Your task to perform on an android device: change timer sound Image 0: 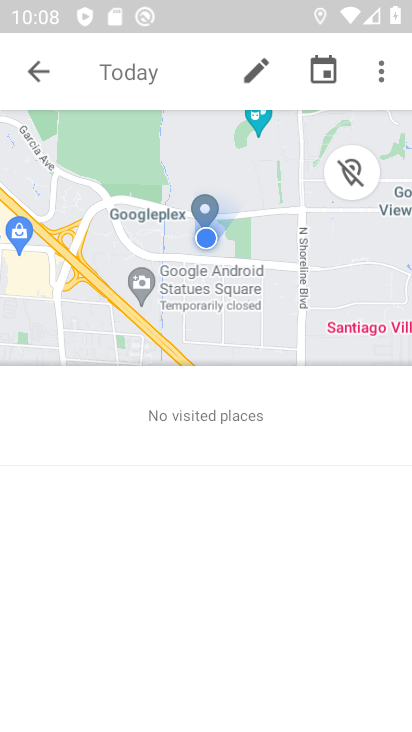
Step 0: drag from (307, 451) to (259, 20)
Your task to perform on an android device: change timer sound Image 1: 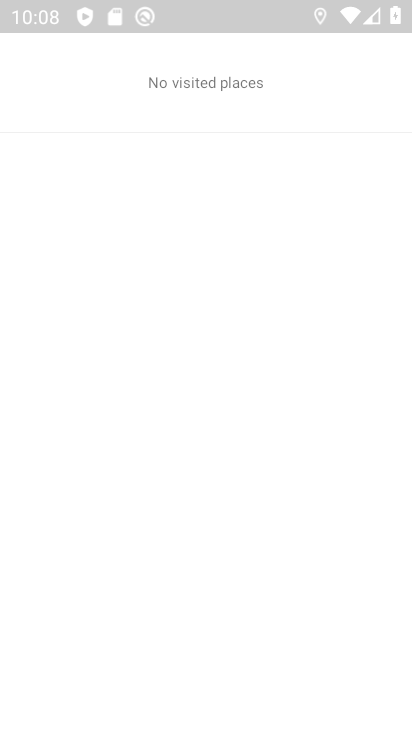
Step 1: press home button
Your task to perform on an android device: change timer sound Image 2: 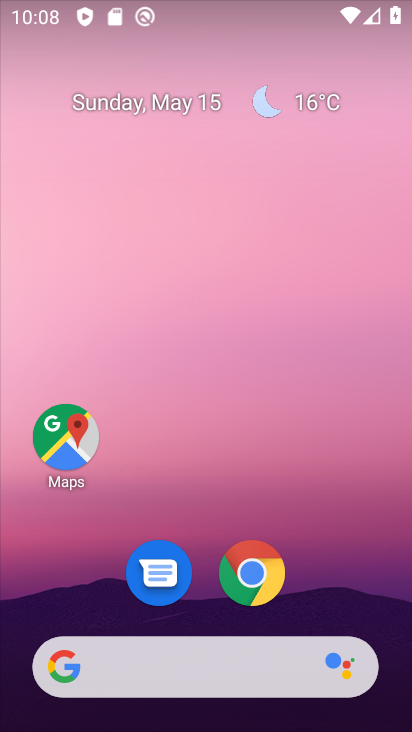
Step 2: drag from (326, 605) to (258, 107)
Your task to perform on an android device: change timer sound Image 3: 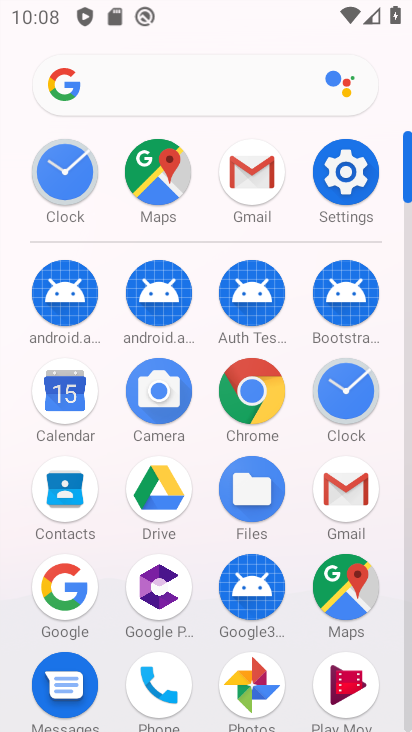
Step 3: click (349, 399)
Your task to perform on an android device: change timer sound Image 4: 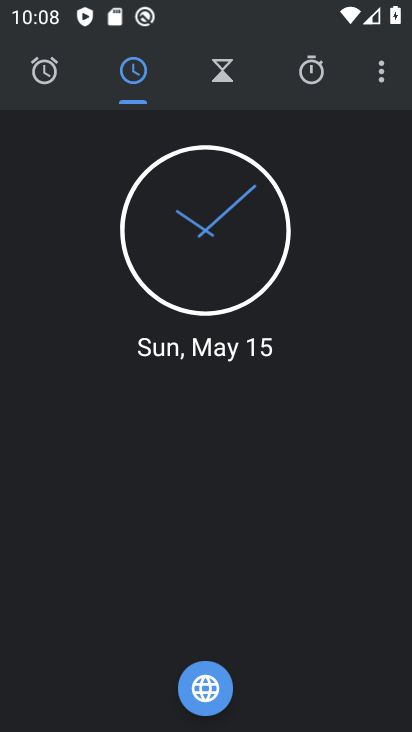
Step 4: click (384, 83)
Your task to perform on an android device: change timer sound Image 5: 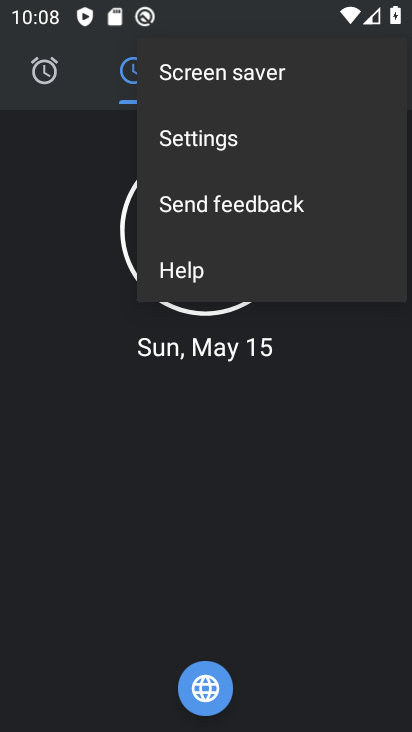
Step 5: click (222, 148)
Your task to perform on an android device: change timer sound Image 6: 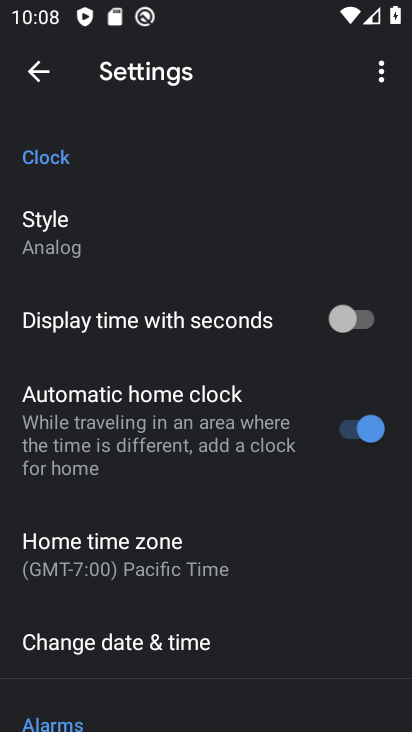
Step 6: drag from (198, 540) to (184, 191)
Your task to perform on an android device: change timer sound Image 7: 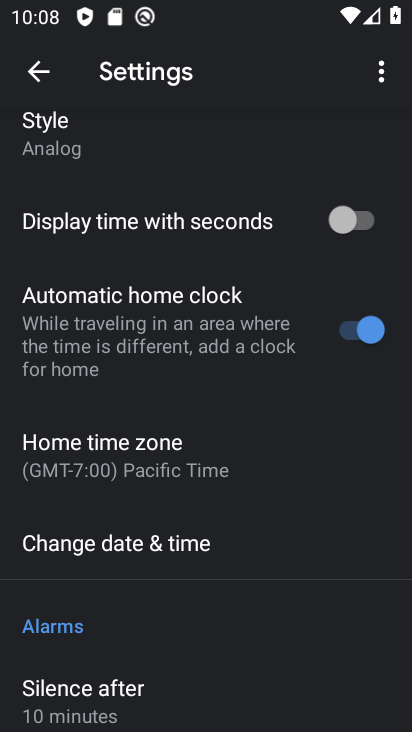
Step 7: drag from (134, 590) to (107, 249)
Your task to perform on an android device: change timer sound Image 8: 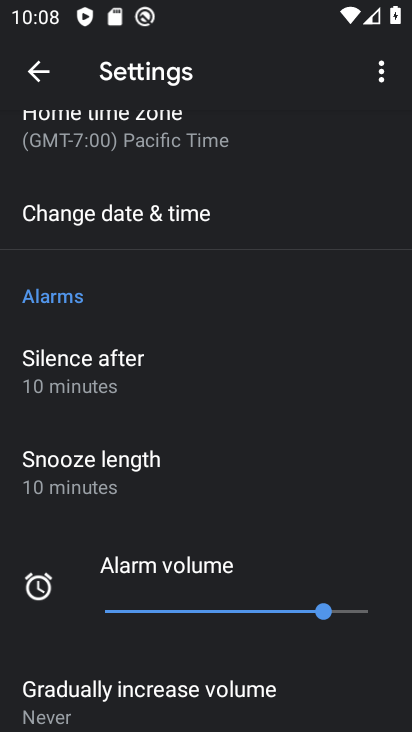
Step 8: drag from (116, 344) to (156, 140)
Your task to perform on an android device: change timer sound Image 9: 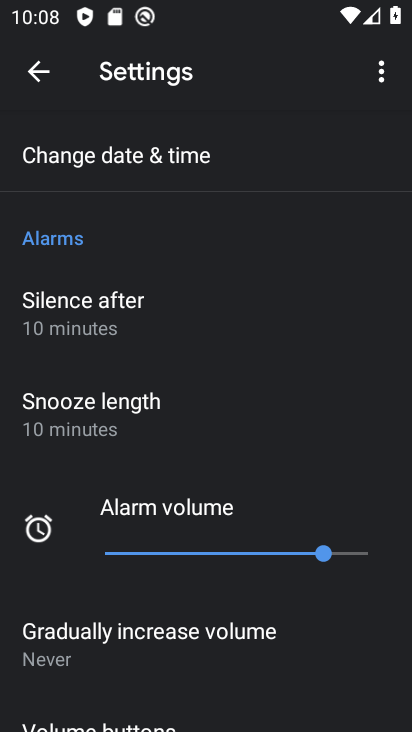
Step 9: drag from (188, 297) to (209, 222)
Your task to perform on an android device: change timer sound Image 10: 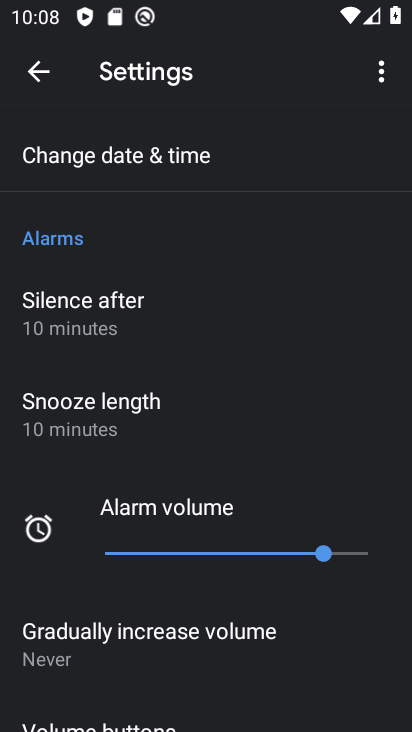
Step 10: drag from (225, 651) to (261, 165)
Your task to perform on an android device: change timer sound Image 11: 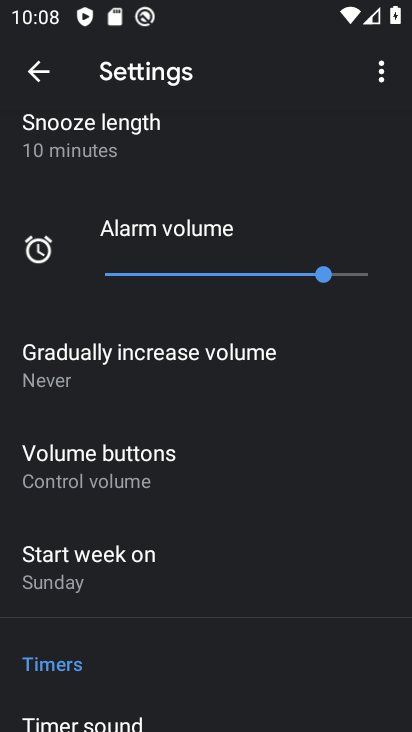
Step 11: drag from (201, 695) to (242, 164)
Your task to perform on an android device: change timer sound Image 12: 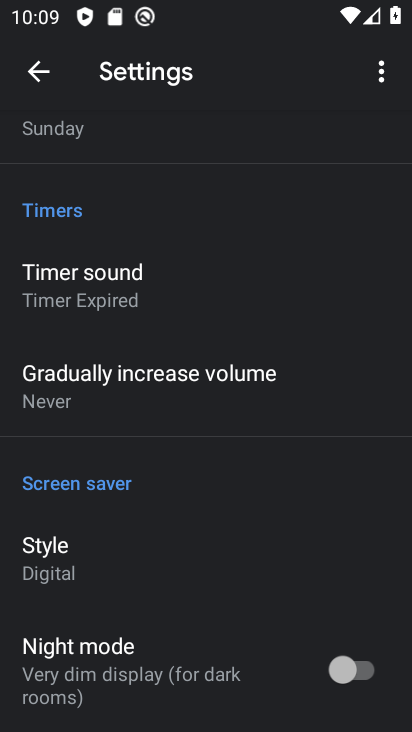
Step 12: click (92, 290)
Your task to perform on an android device: change timer sound Image 13: 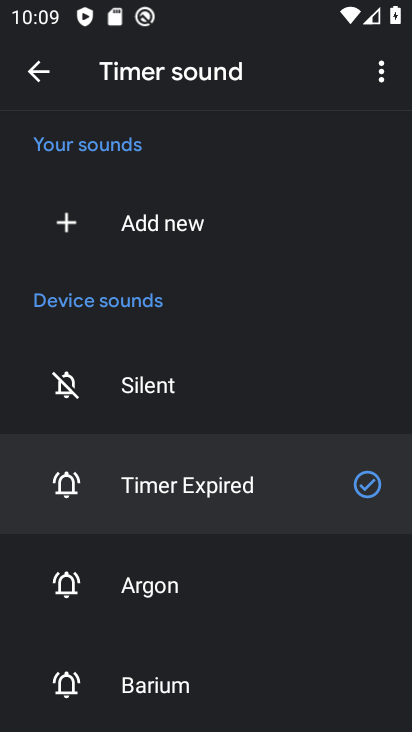
Step 13: click (97, 617)
Your task to perform on an android device: change timer sound Image 14: 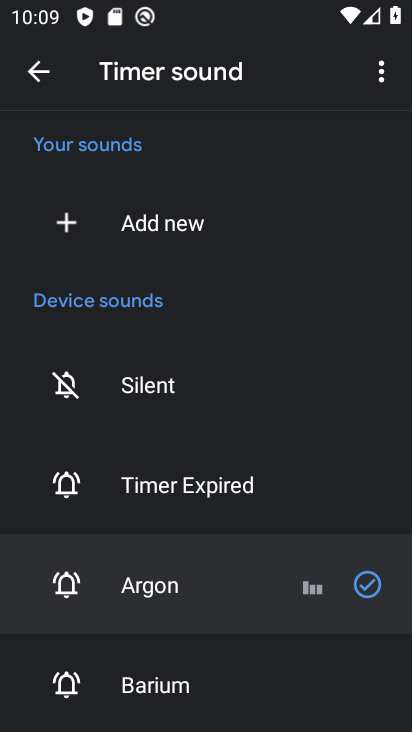
Step 14: task complete